Your task to perform on an android device: Go to Maps Image 0: 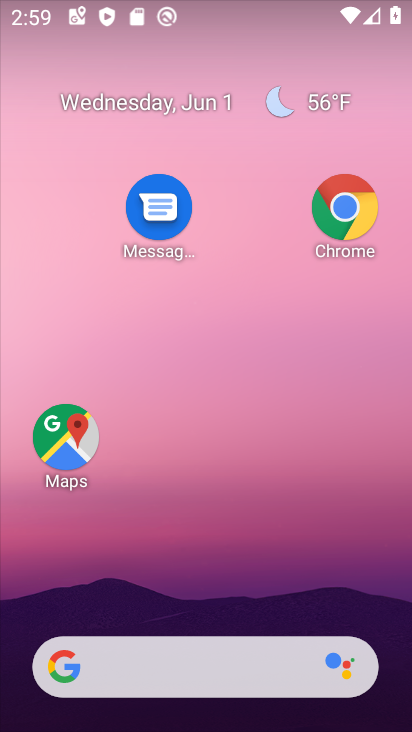
Step 0: drag from (222, 560) to (307, 190)
Your task to perform on an android device: Go to Maps Image 1: 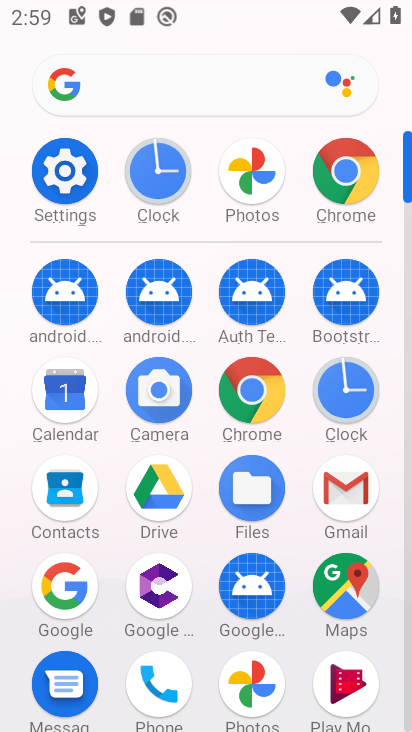
Step 1: click (360, 608)
Your task to perform on an android device: Go to Maps Image 2: 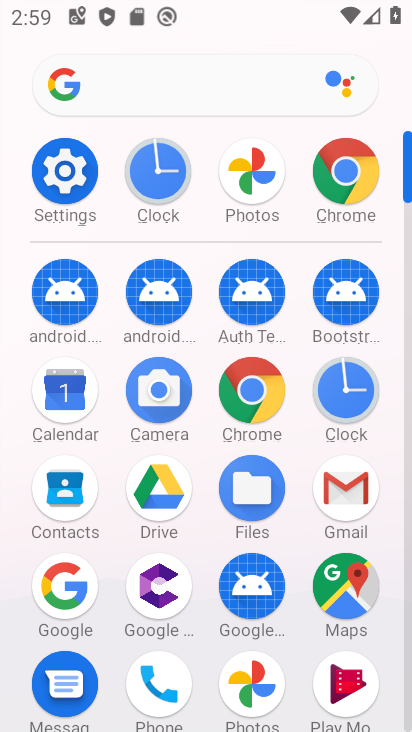
Step 2: click (360, 608)
Your task to perform on an android device: Go to Maps Image 3: 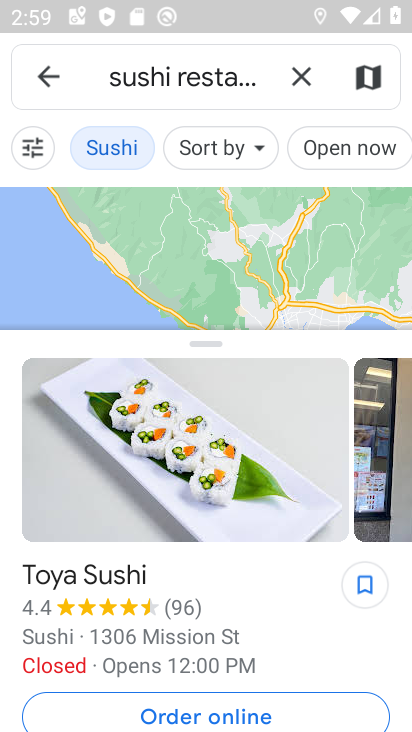
Step 3: task complete